Your task to perform on an android device: Open ESPN.com Image 0: 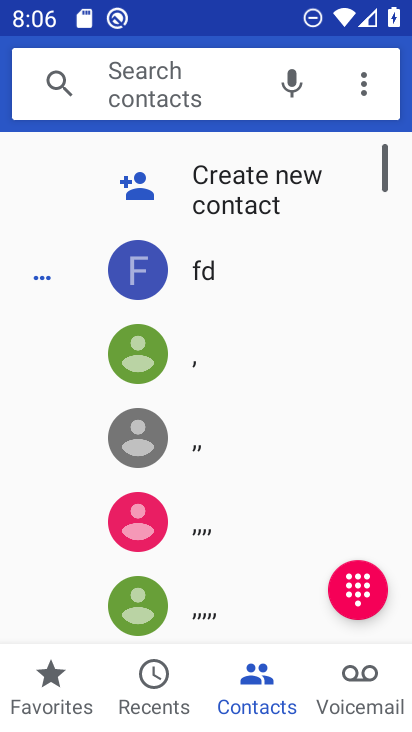
Step 0: press home button
Your task to perform on an android device: Open ESPN.com Image 1: 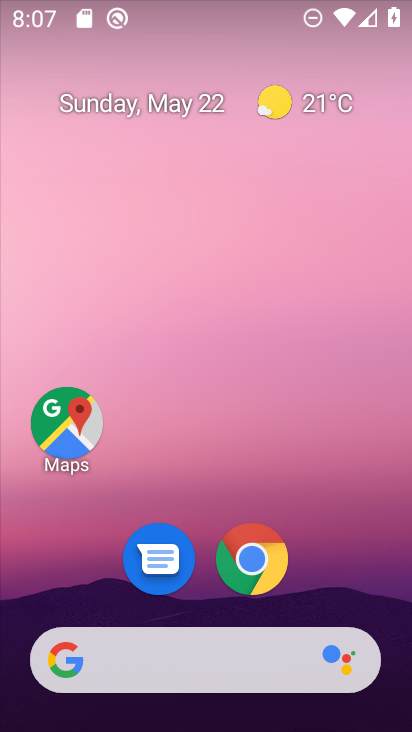
Step 1: drag from (288, 659) to (221, 225)
Your task to perform on an android device: Open ESPN.com Image 2: 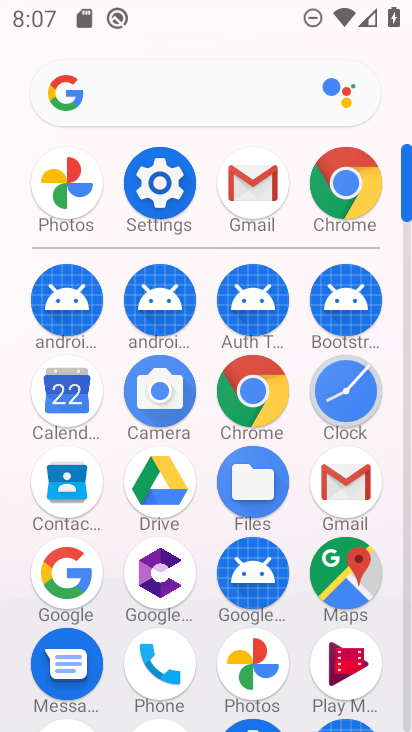
Step 2: click (127, 104)
Your task to perform on an android device: Open ESPN.com Image 3: 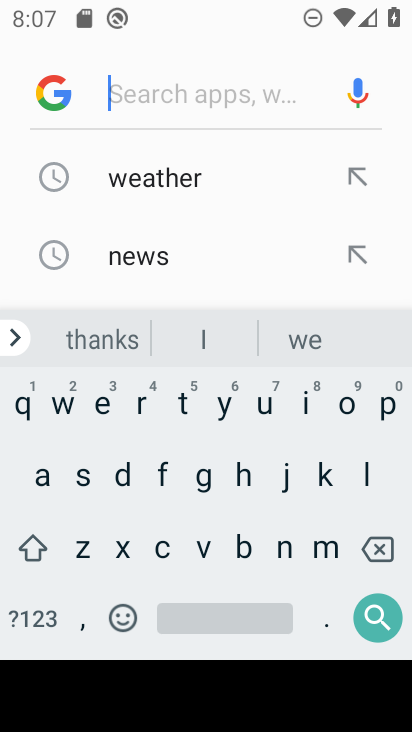
Step 3: click (100, 402)
Your task to perform on an android device: Open ESPN.com Image 4: 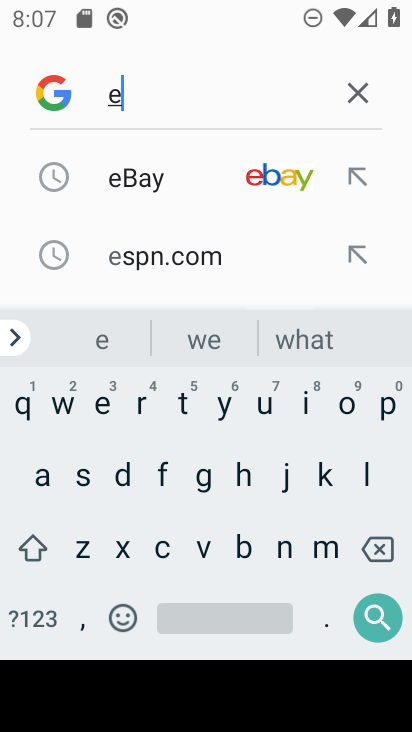
Step 4: click (83, 477)
Your task to perform on an android device: Open ESPN.com Image 5: 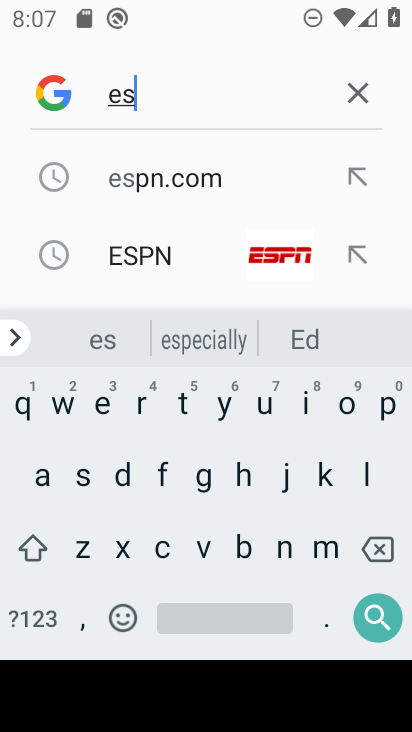
Step 5: click (161, 193)
Your task to perform on an android device: Open ESPN.com Image 6: 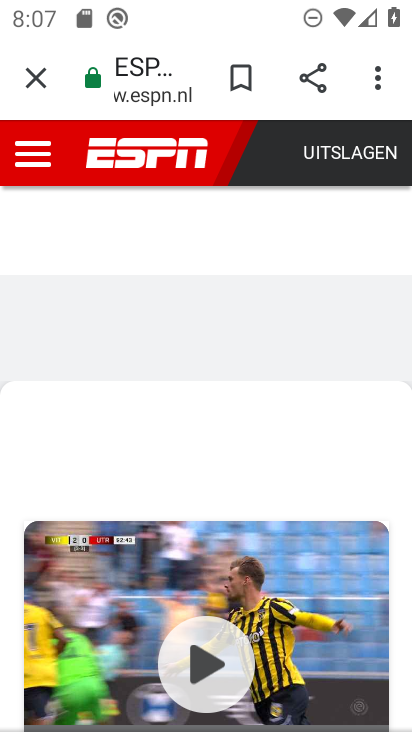
Step 6: task complete